Your task to perform on an android device: search for starred emails in the gmail app Image 0: 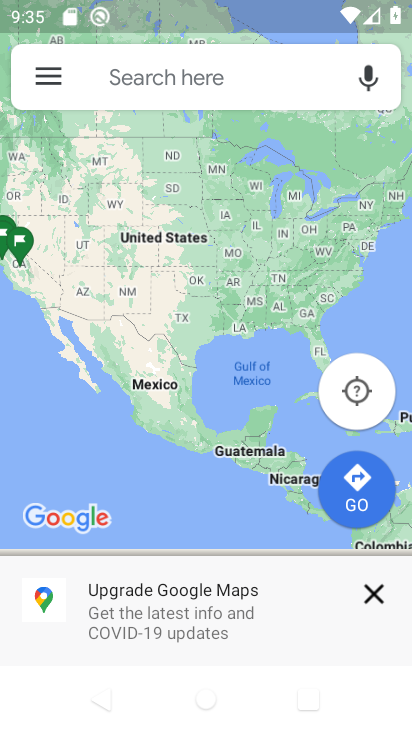
Step 0: press home button
Your task to perform on an android device: search for starred emails in the gmail app Image 1: 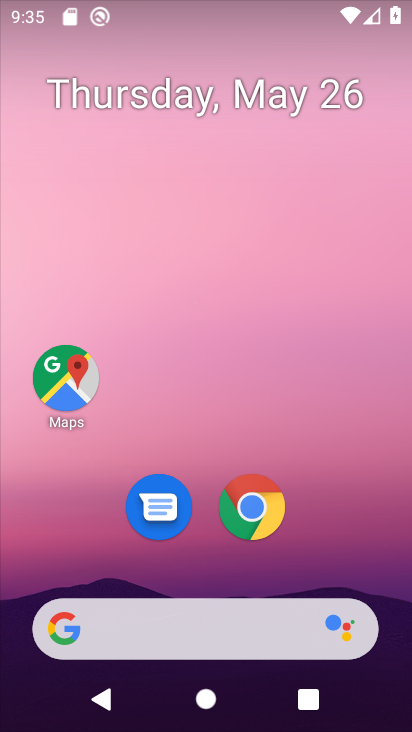
Step 1: drag from (379, 571) to (370, 196)
Your task to perform on an android device: search for starred emails in the gmail app Image 2: 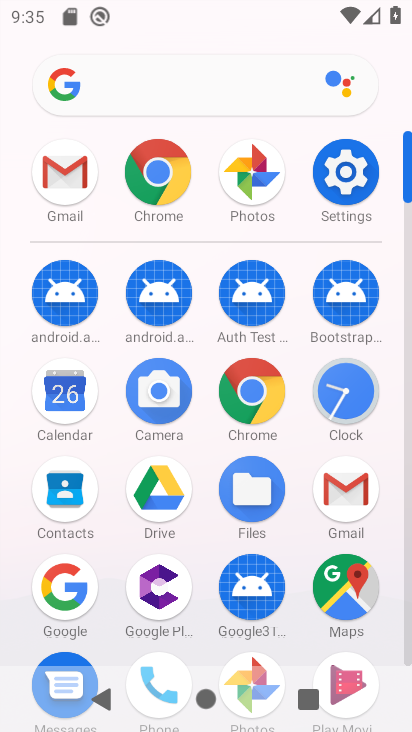
Step 2: click (370, 503)
Your task to perform on an android device: search for starred emails in the gmail app Image 3: 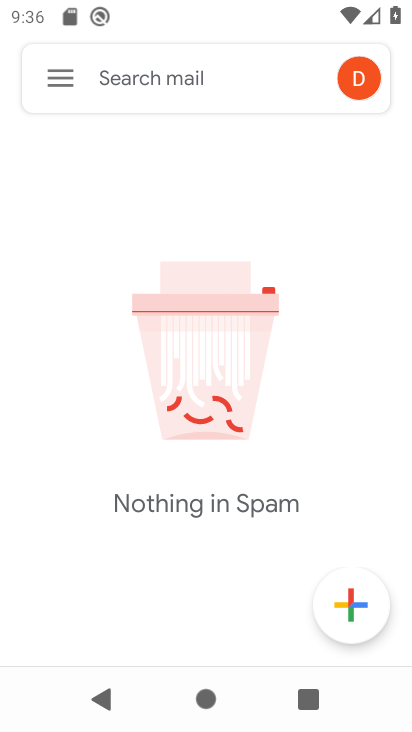
Step 3: click (65, 82)
Your task to perform on an android device: search for starred emails in the gmail app Image 4: 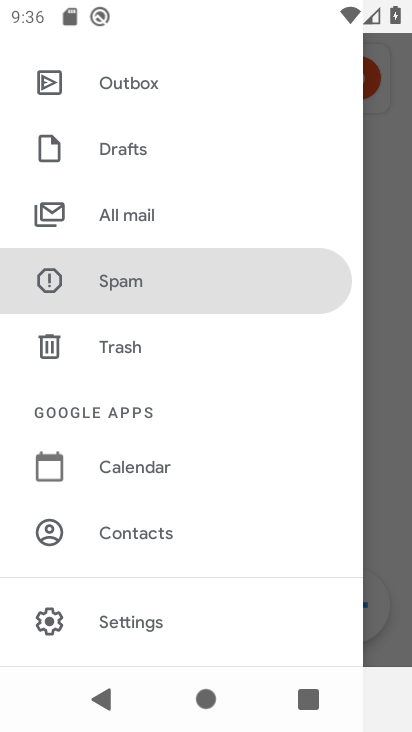
Step 4: drag from (266, 515) to (288, 323)
Your task to perform on an android device: search for starred emails in the gmail app Image 5: 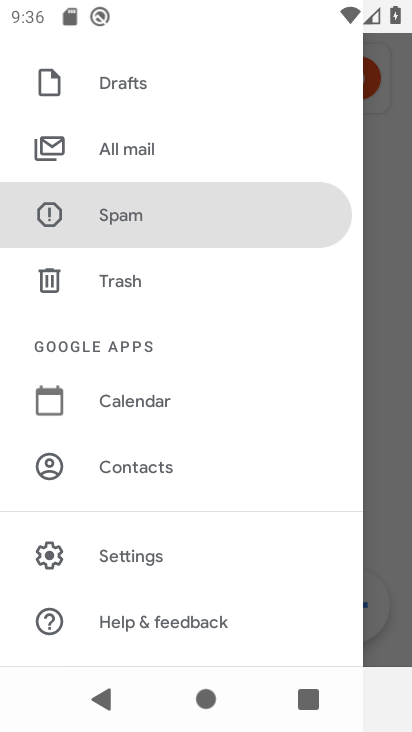
Step 5: drag from (290, 146) to (290, 326)
Your task to perform on an android device: search for starred emails in the gmail app Image 6: 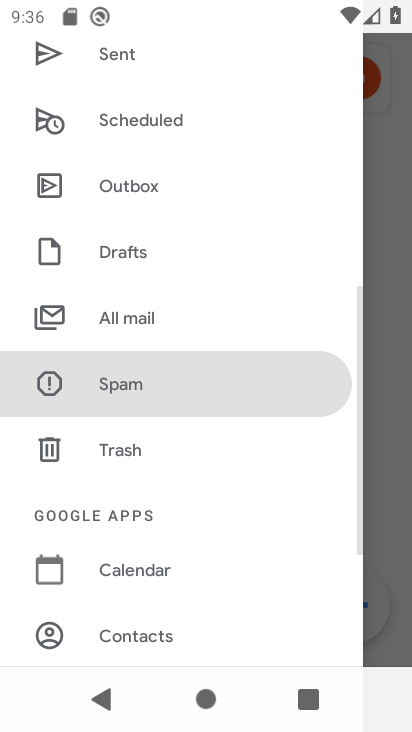
Step 6: drag from (279, 147) to (271, 324)
Your task to perform on an android device: search for starred emails in the gmail app Image 7: 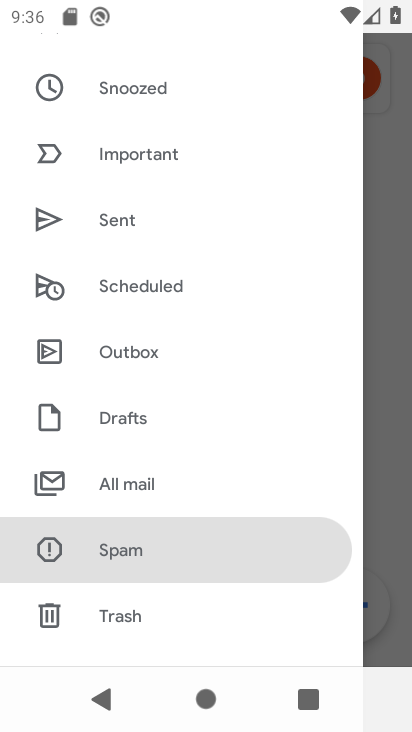
Step 7: drag from (278, 186) to (269, 392)
Your task to perform on an android device: search for starred emails in the gmail app Image 8: 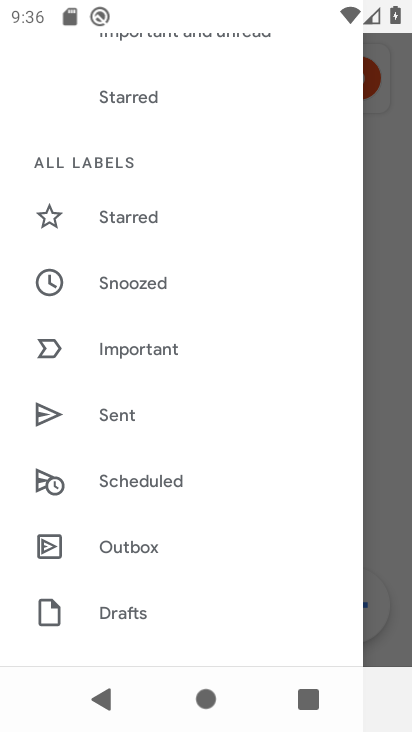
Step 8: drag from (232, 248) to (242, 368)
Your task to perform on an android device: search for starred emails in the gmail app Image 9: 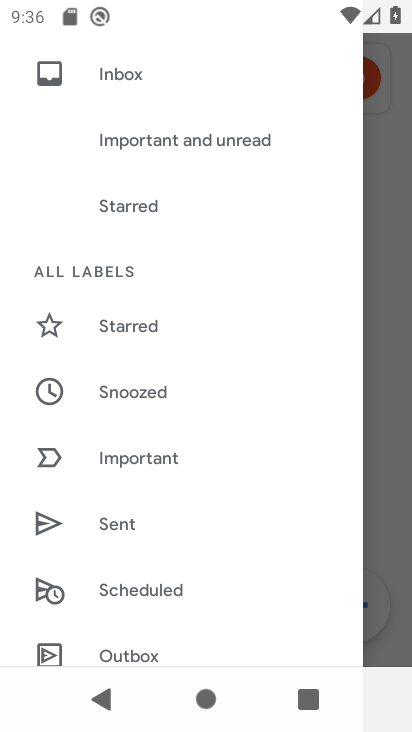
Step 9: click (172, 334)
Your task to perform on an android device: search for starred emails in the gmail app Image 10: 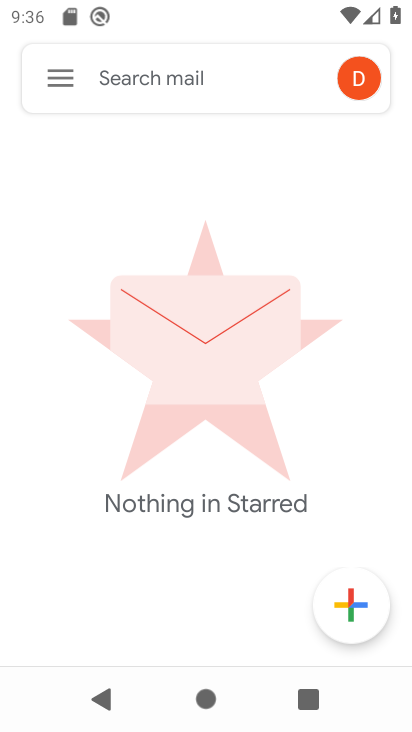
Step 10: task complete